Your task to perform on an android device: open app "Microsoft Excel" (install if not already installed) Image 0: 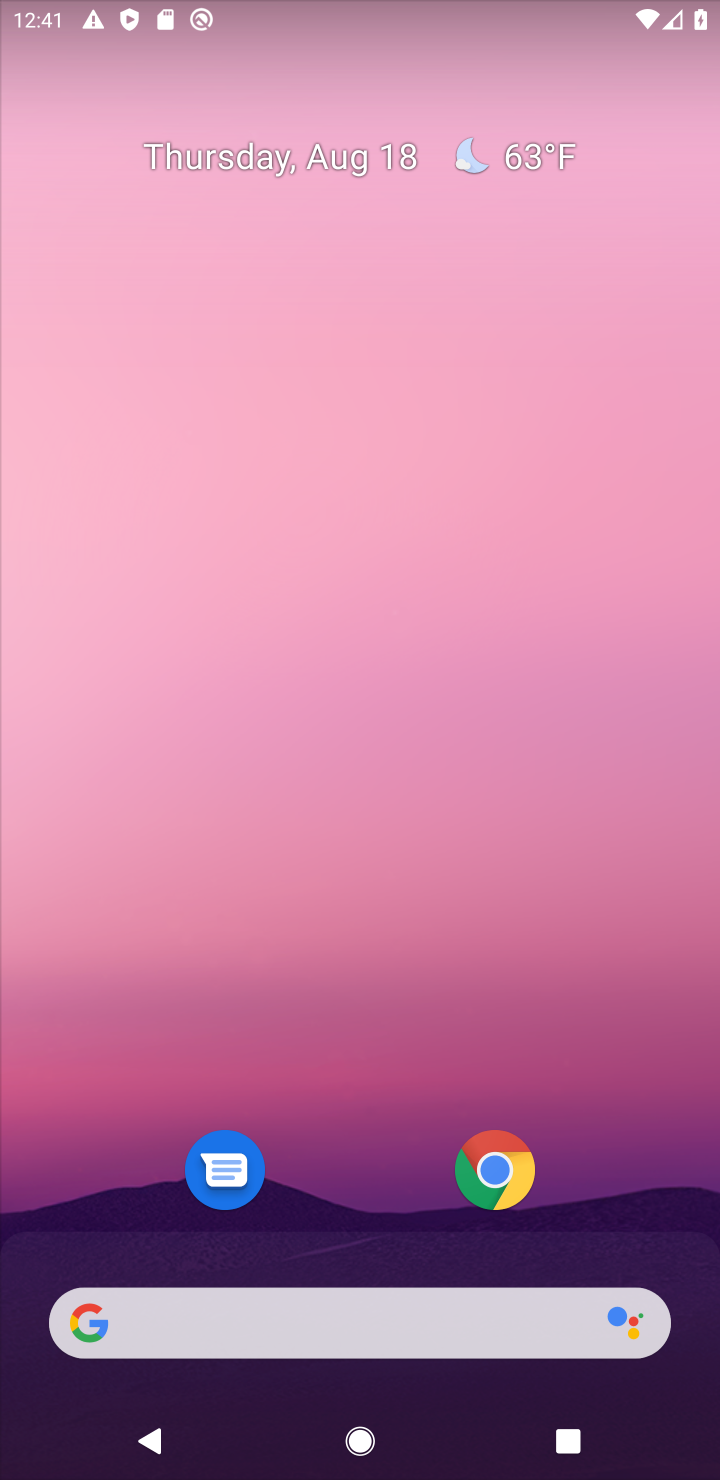
Step 0: drag from (332, 1295) to (579, 400)
Your task to perform on an android device: open app "Microsoft Excel" (install if not already installed) Image 1: 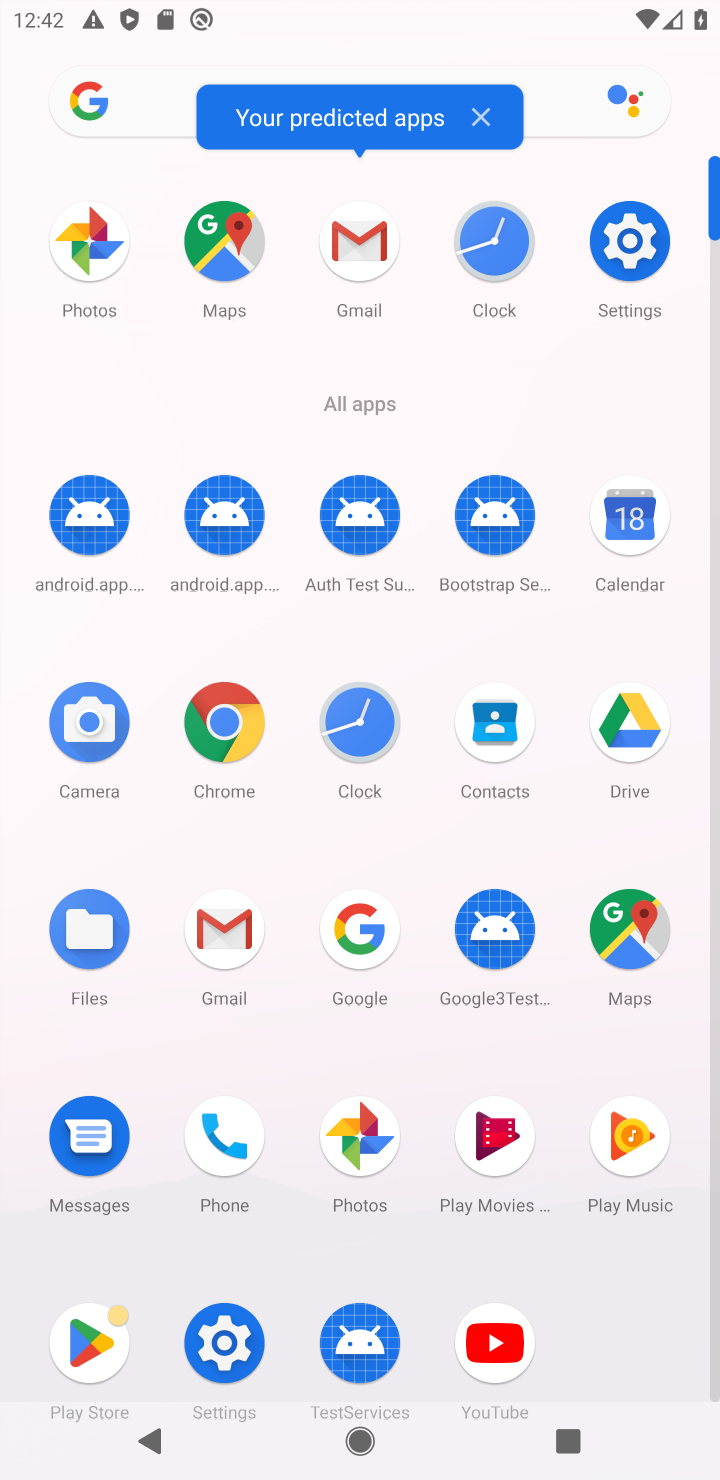
Step 1: click (86, 1350)
Your task to perform on an android device: open app "Microsoft Excel" (install if not already installed) Image 2: 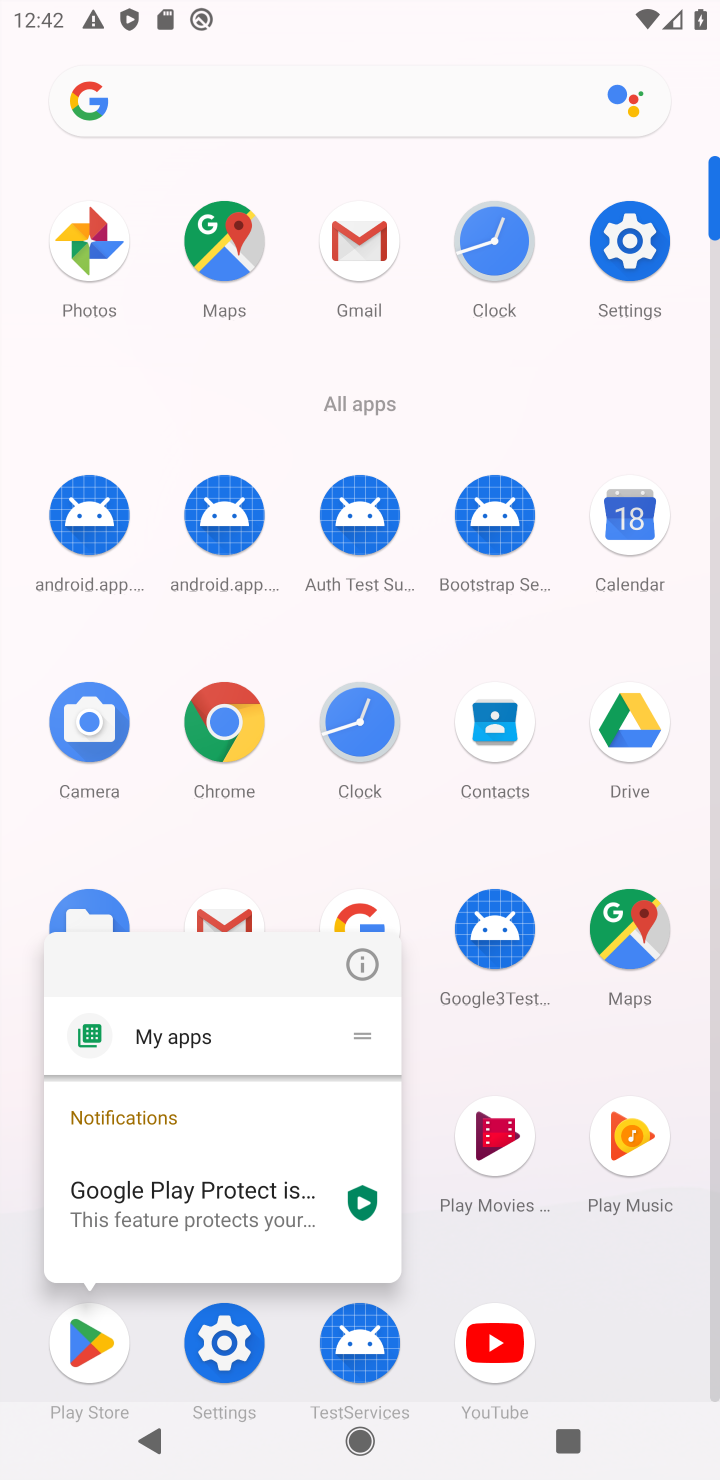
Step 2: click (84, 1347)
Your task to perform on an android device: open app "Microsoft Excel" (install if not already installed) Image 3: 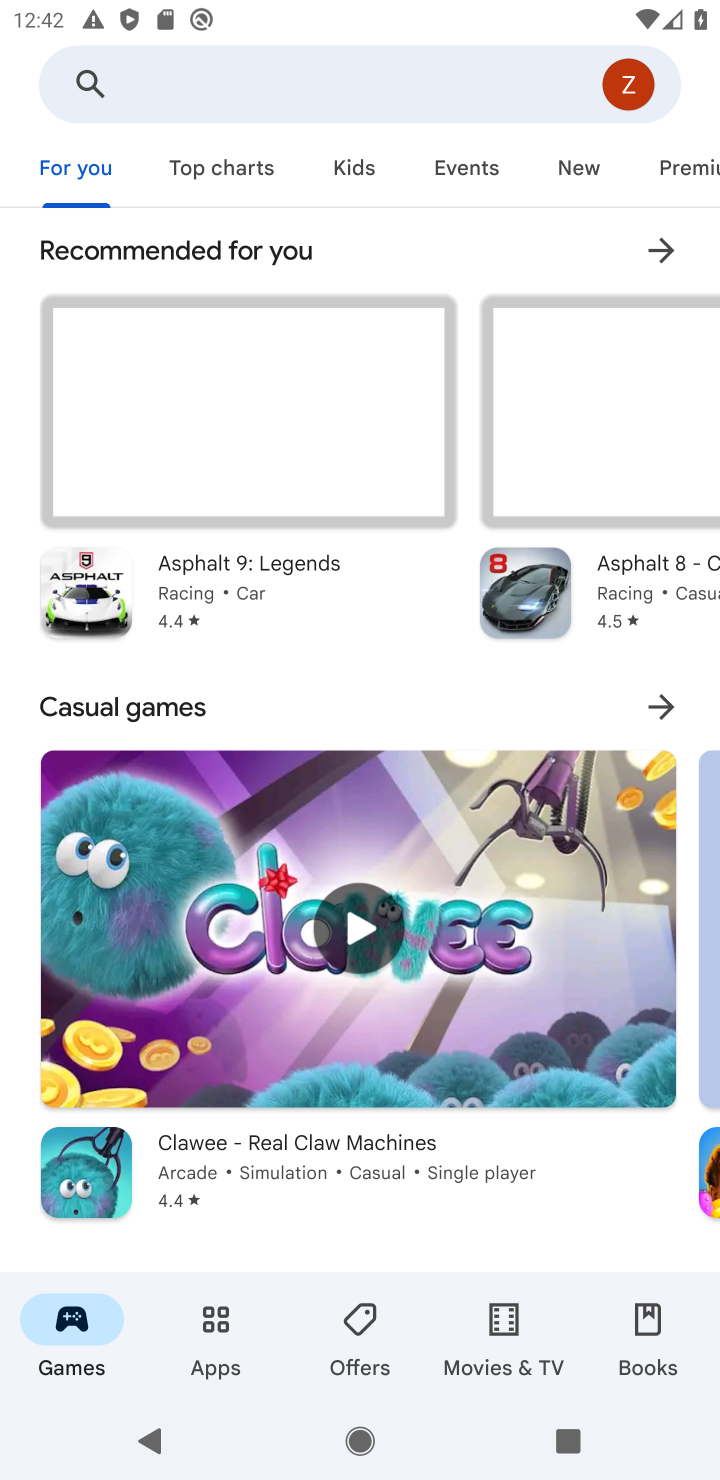
Step 3: click (370, 74)
Your task to perform on an android device: open app "Microsoft Excel" (install if not already installed) Image 4: 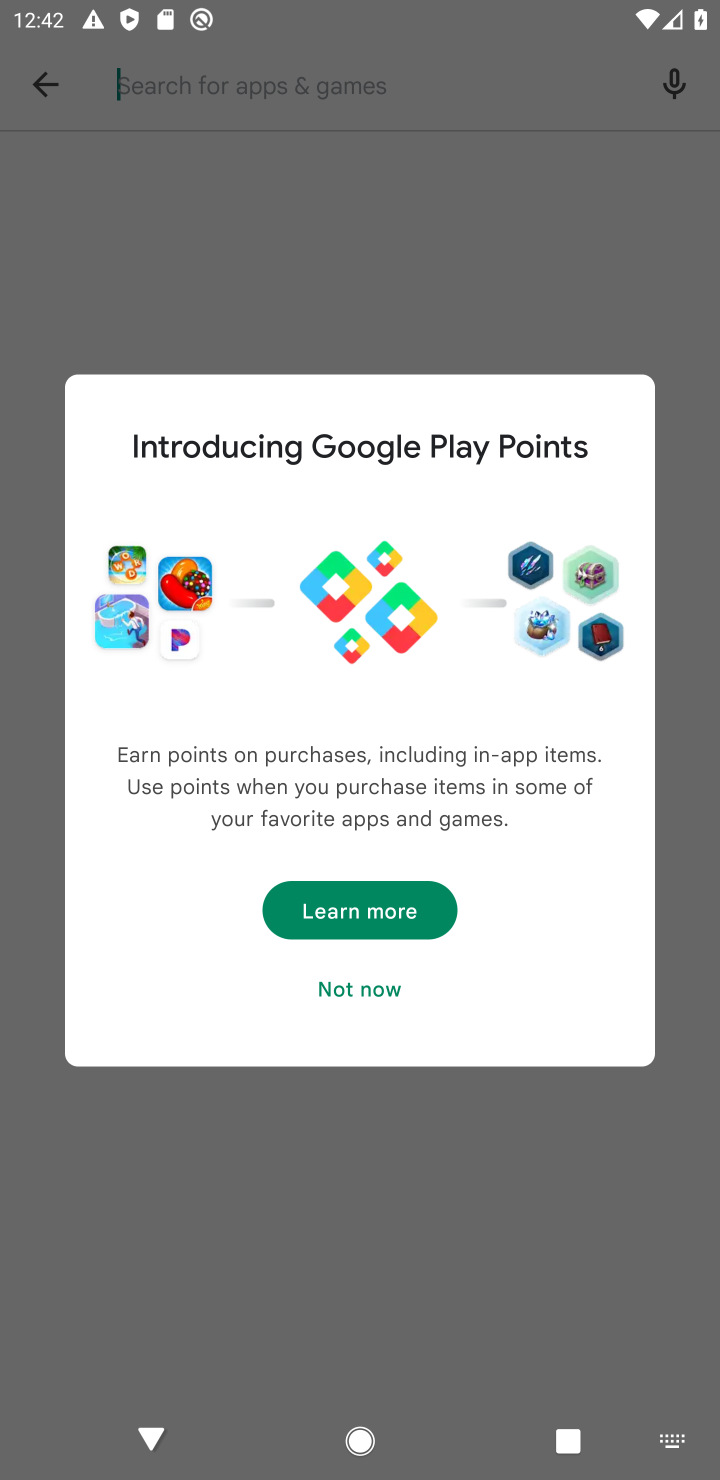
Step 4: click (368, 984)
Your task to perform on an android device: open app "Microsoft Excel" (install if not already installed) Image 5: 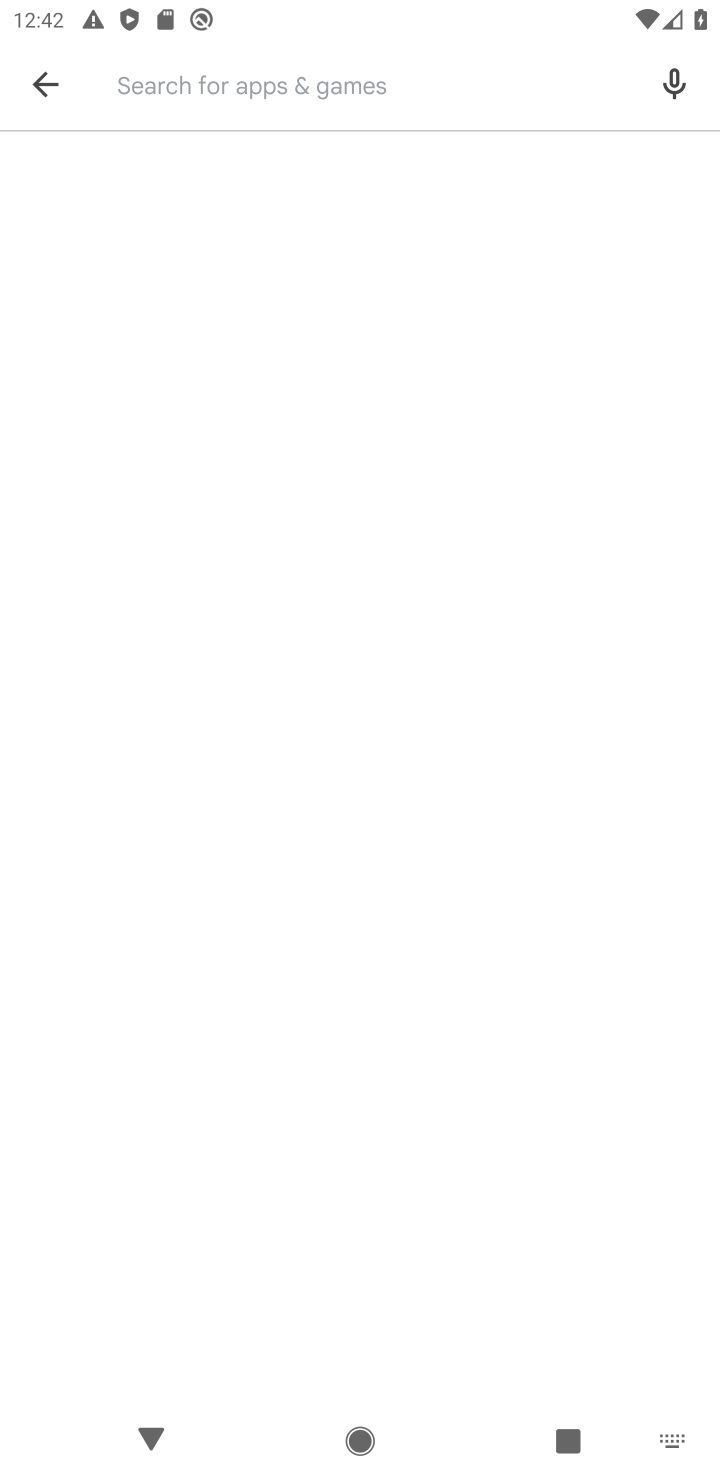
Step 5: type "Microsoft Excel"
Your task to perform on an android device: open app "Microsoft Excel" (install if not already installed) Image 6: 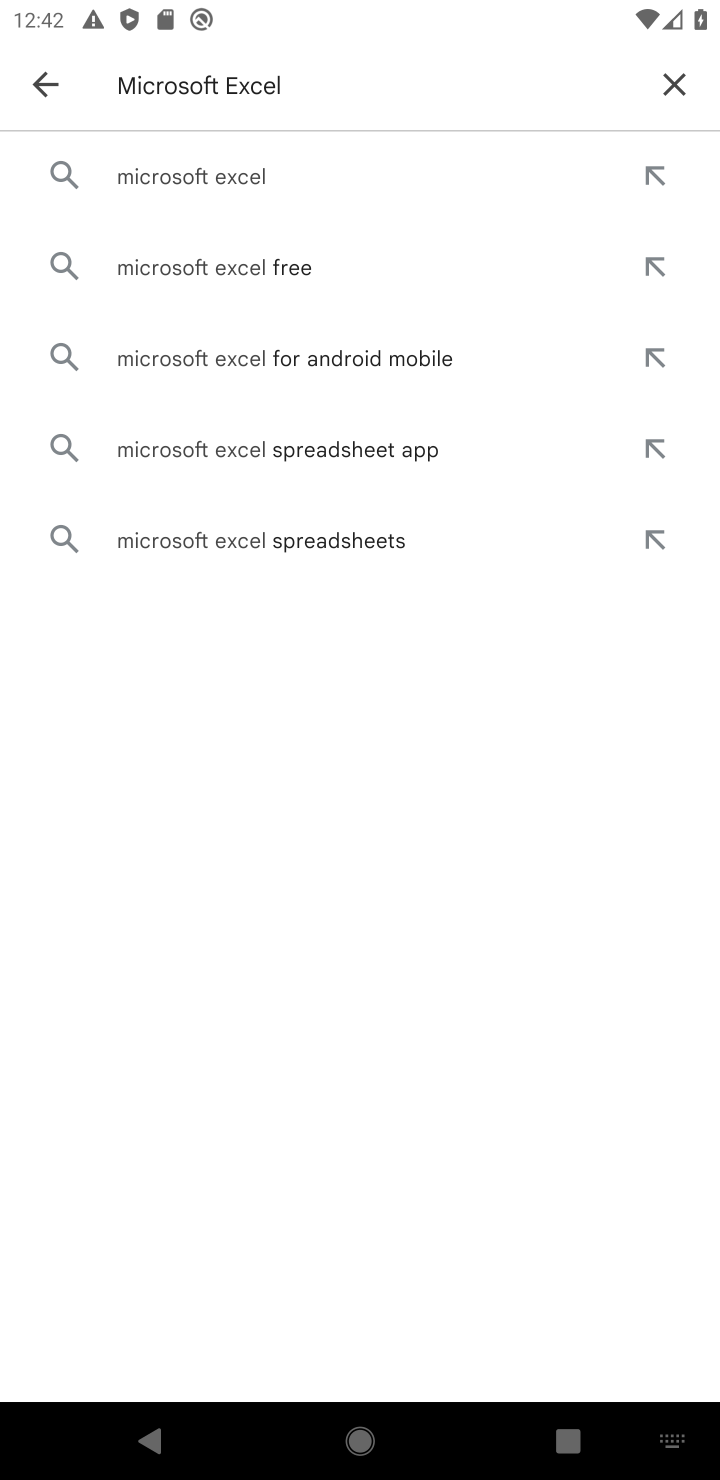
Step 6: click (239, 188)
Your task to perform on an android device: open app "Microsoft Excel" (install if not already installed) Image 7: 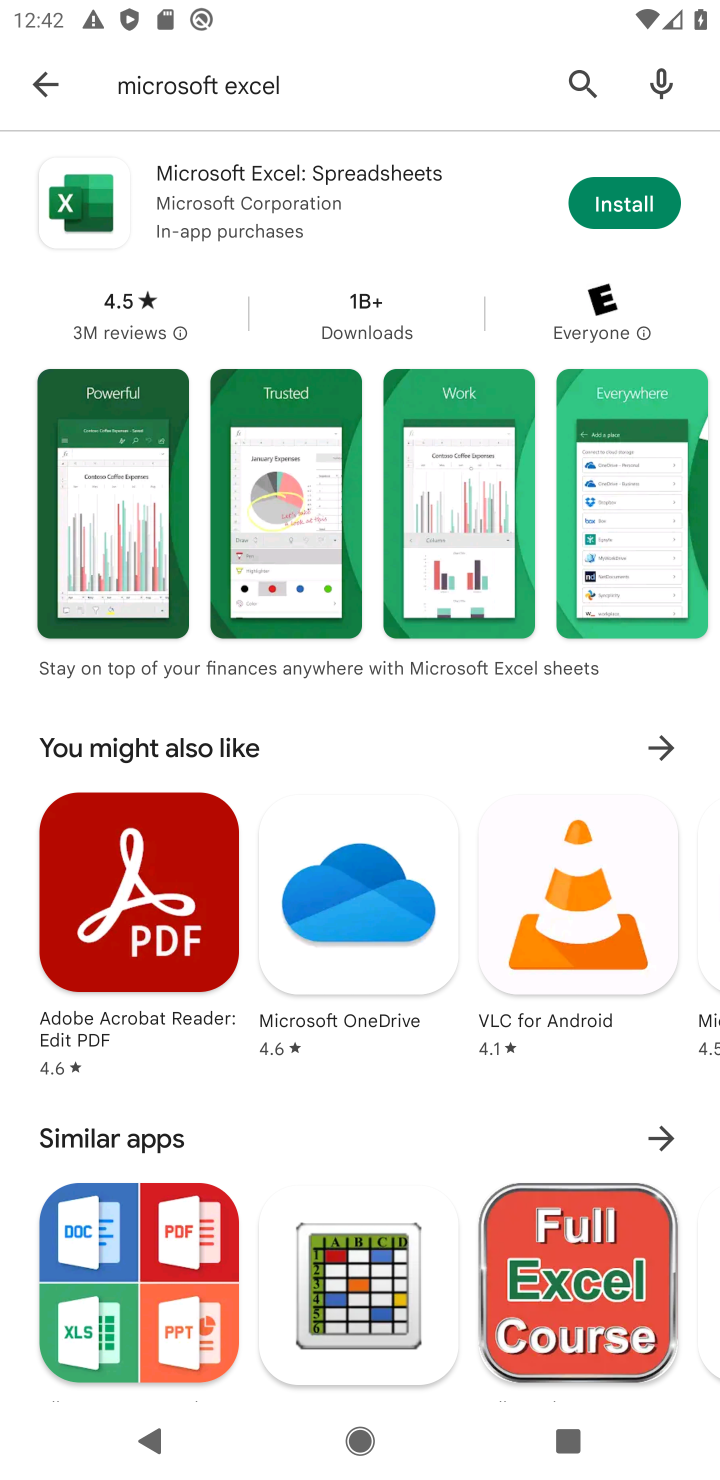
Step 7: click (635, 199)
Your task to perform on an android device: open app "Microsoft Excel" (install if not already installed) Image 8: 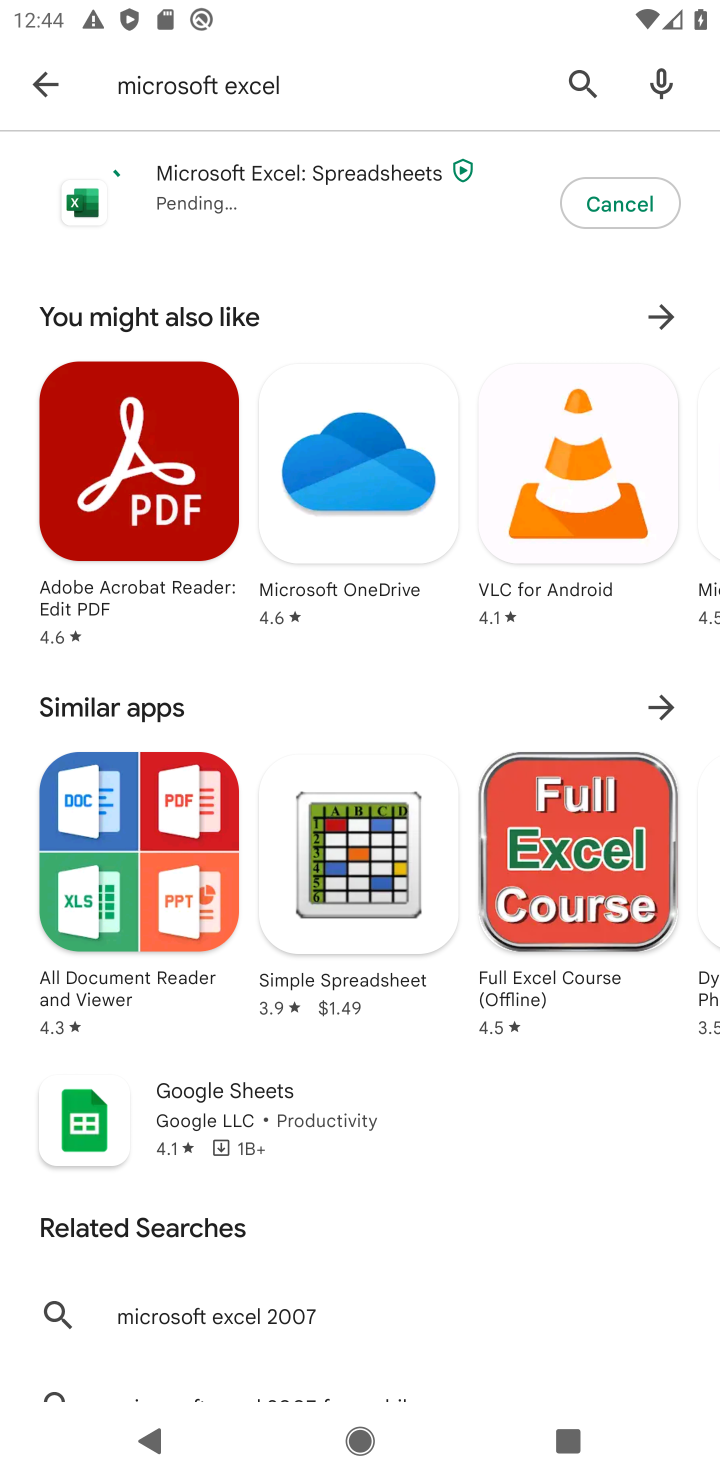
Step 8: press back button
Your task to perform on an android device: open app "Microsoft Excel" (install if not already installed) Image 9: 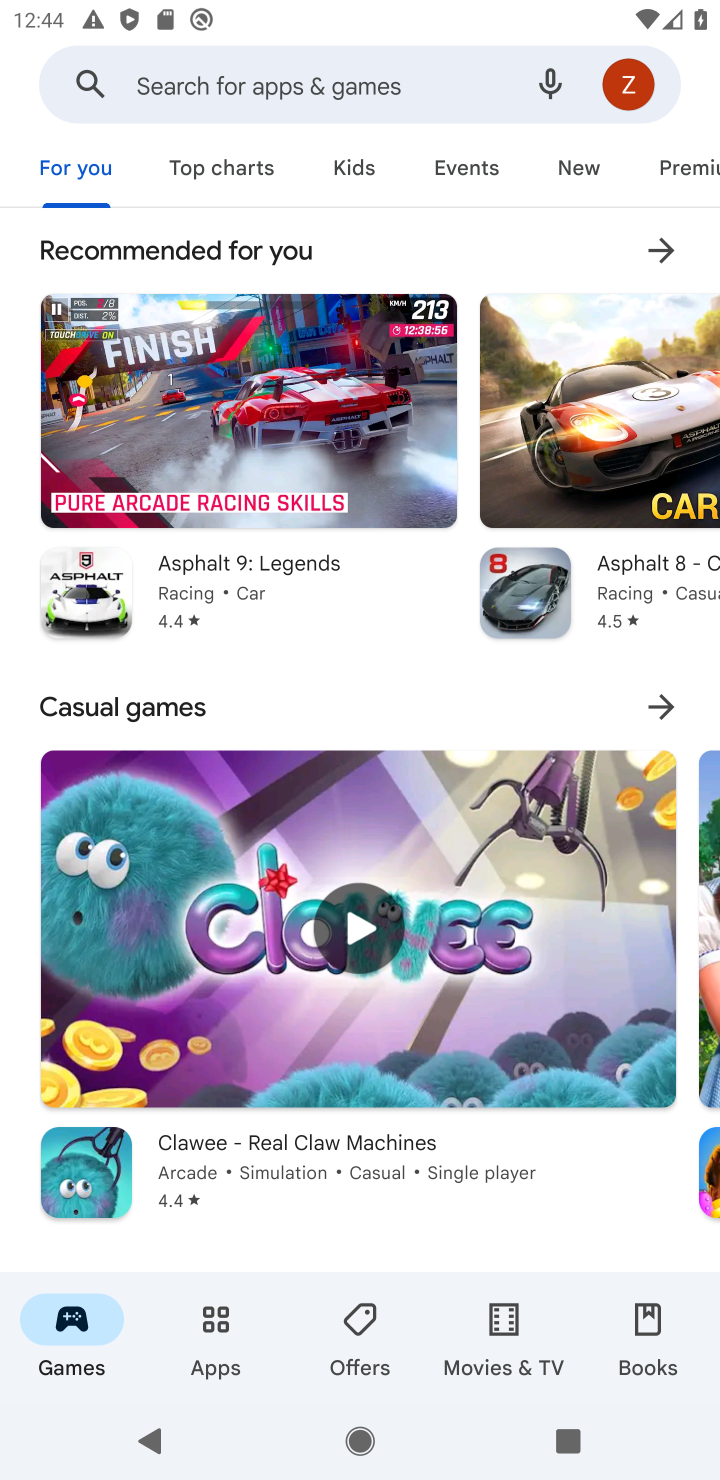
Step 9: click (351, 80)
Your task to perform on an android device: open app "Microsoft Excel" (install if not already installed) Image 10: 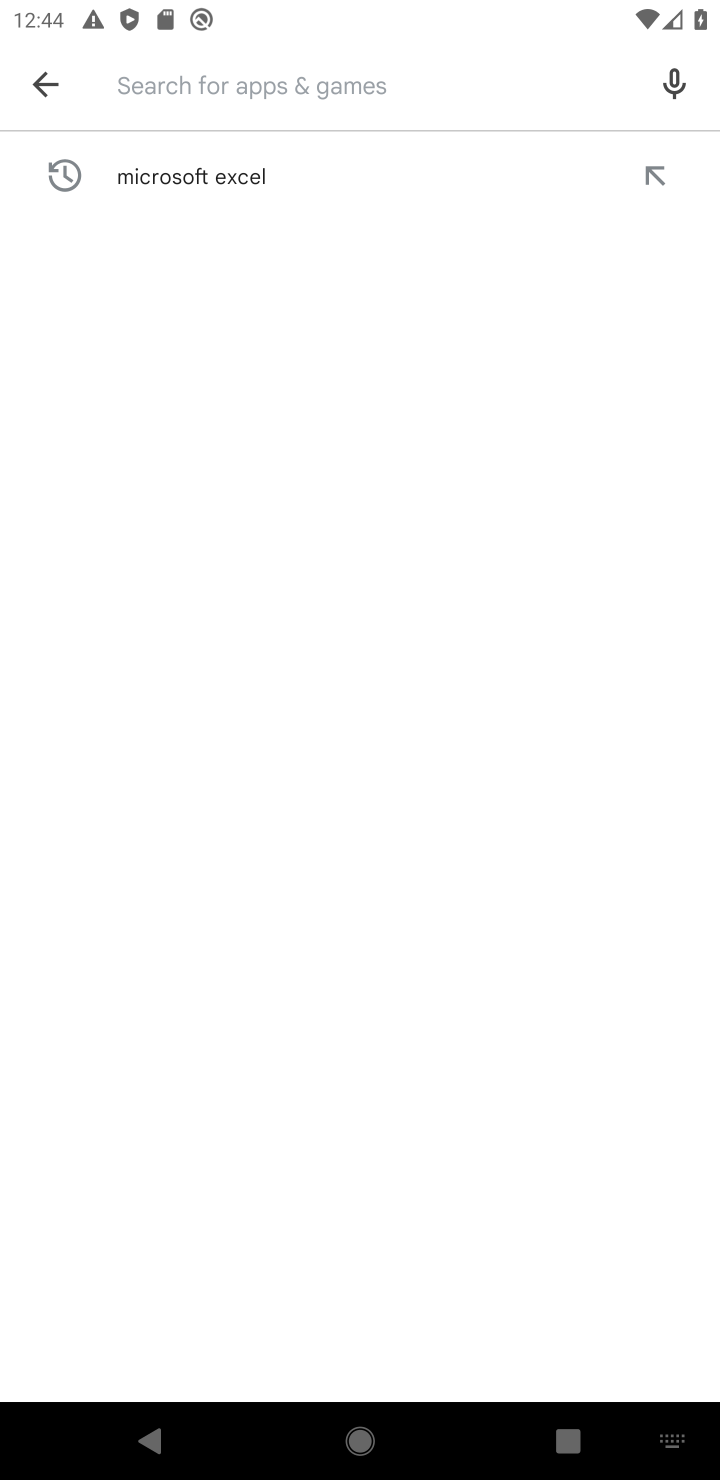
Step 10: type "Microsoft Excel"
Your task to perform on an android device: open app "Microsoft Excel" (install if not already installed) Image 11: 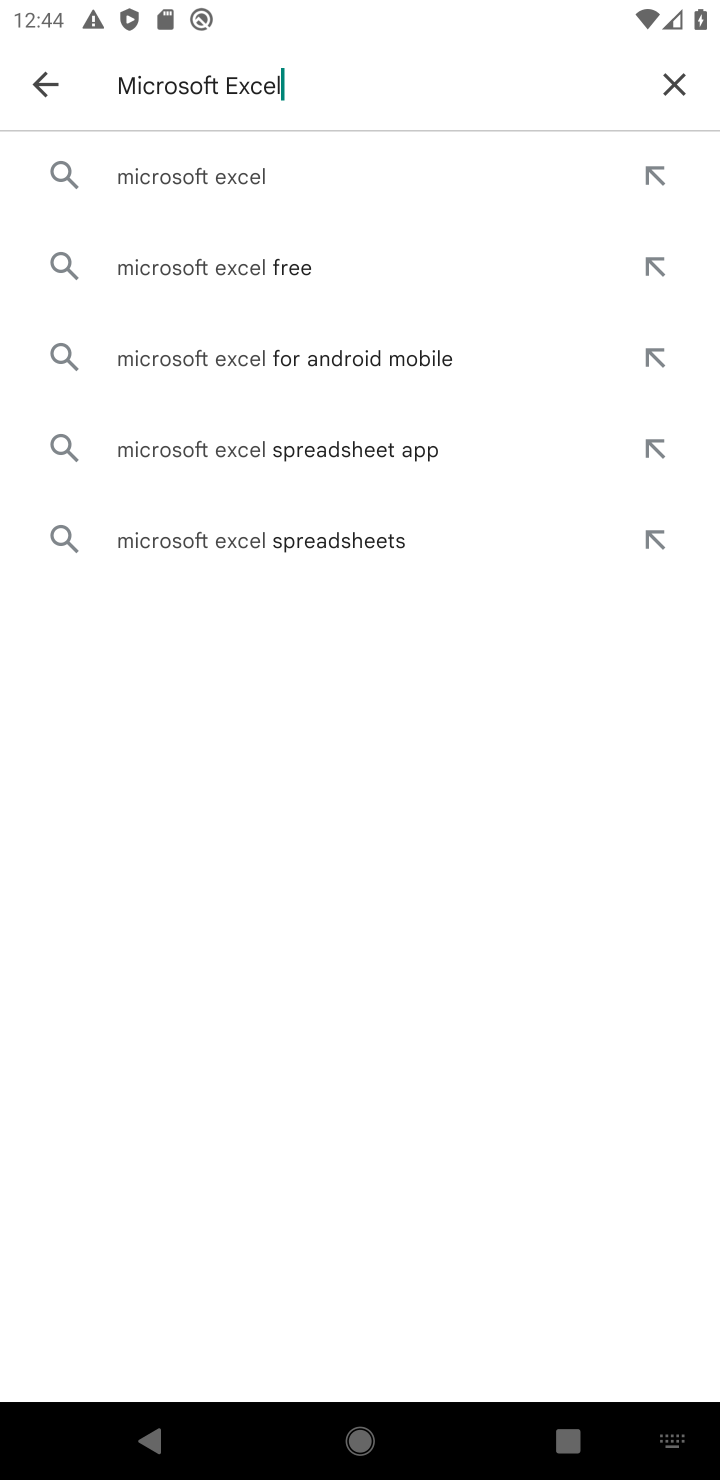
Step 11: click (237, 183)
Your task to perform on an android device: open app "Microsoft Excel" (install if not already installed) Image 12: 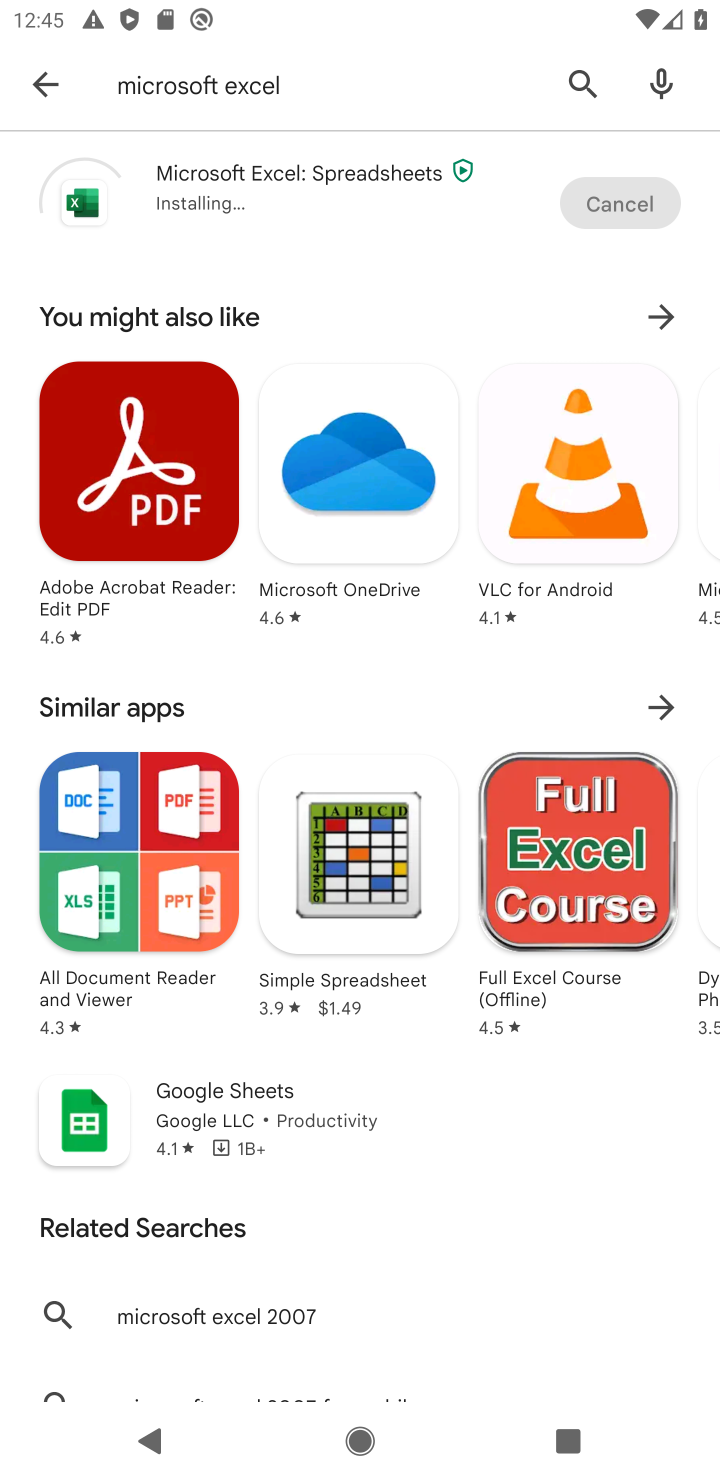
Step 12: task complete